Your task to perform on an android device: visit the assistant section in the google photos Image 0: 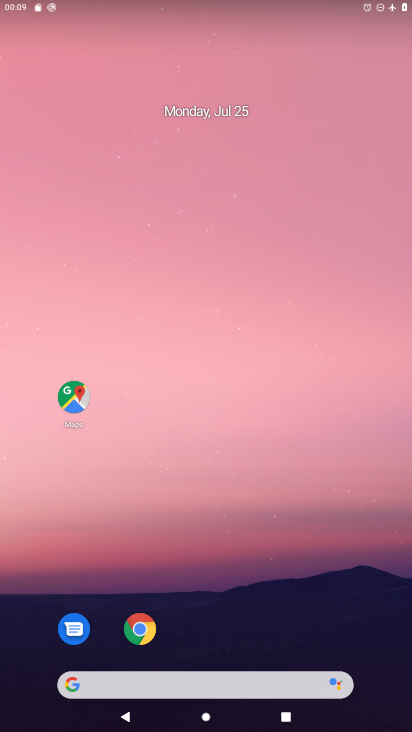
Step 0: drag from (198, 627) to (310, 81)
Your task to perform on an android device: visit the assistant section in the google photos Image 1: 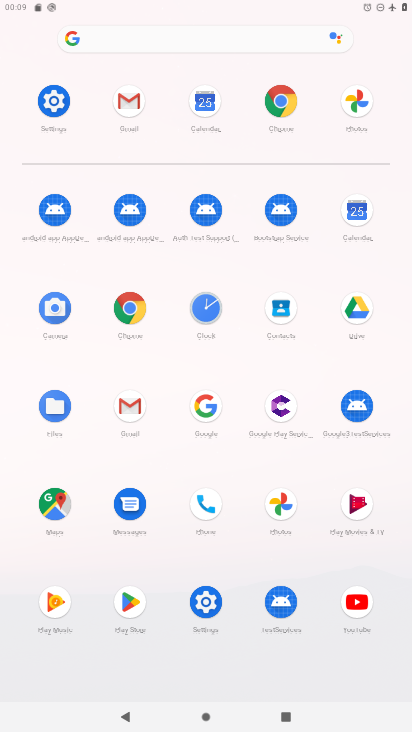
Step 1: click (289, 499)
Your task to perform on an android device: visit the assistant section in the google photos Image 2: 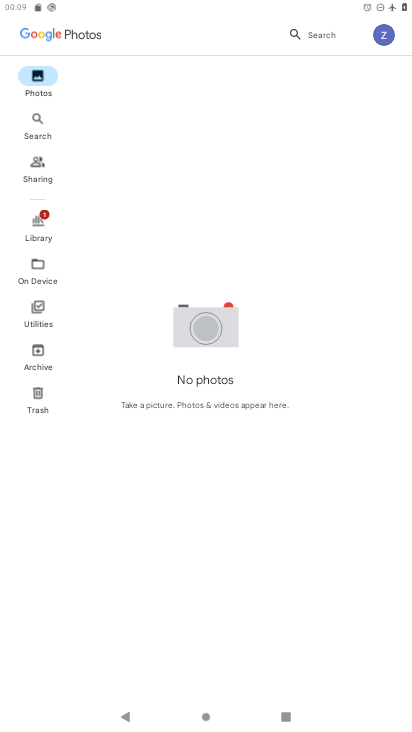
Step 2: click (36, 221)
Your task to perform on an android device: visit the assistant section in the google photos Image 3: 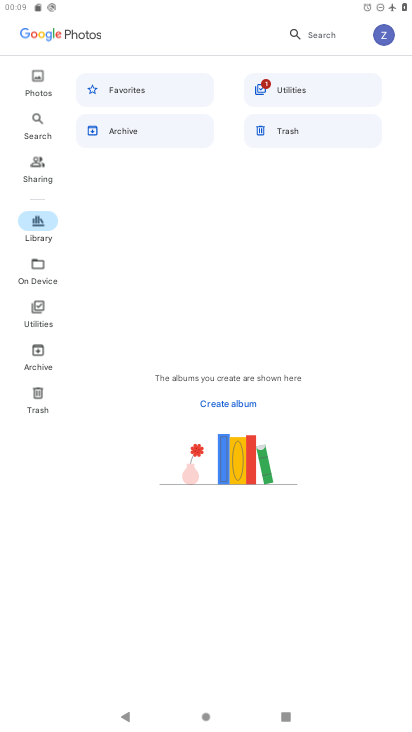
Step 3: click (31, 270)
Your task to perform on an android device: visit the assistant section in the google photos Image 4: 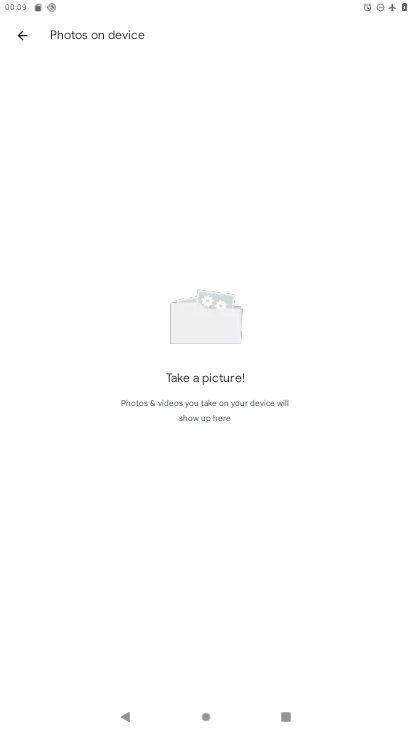
Step 4: click (16, 31)
Your task to perform on an android device: visit the assistant section in the google photos Image 5: 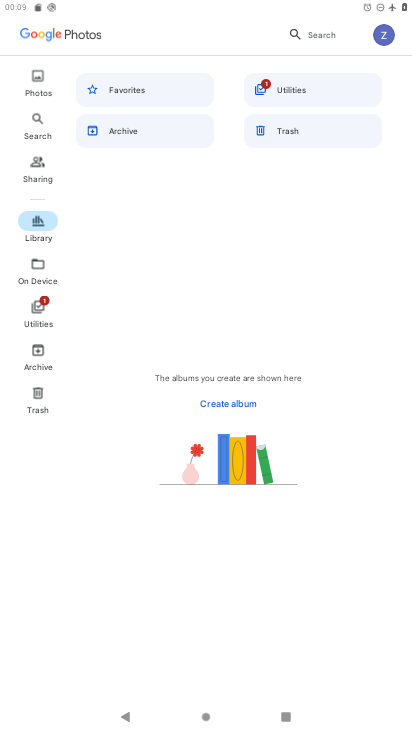
Step 5: click (38, 259)
Your task to perform on an android device: visit the assistant section in the google photos Image 6: 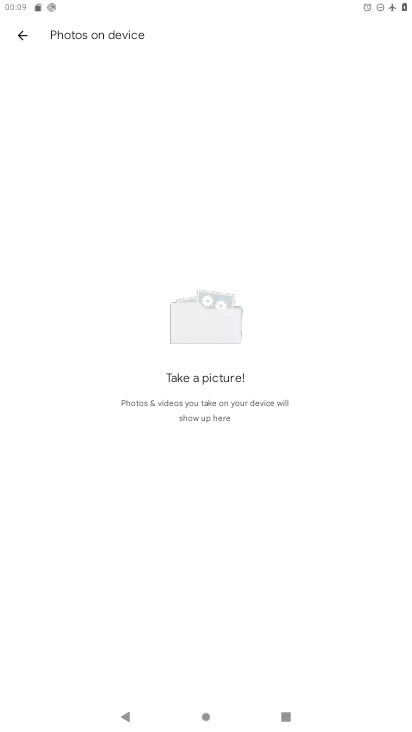
Step 6: click (19, 27)
Your task to perform on an android device: visit the assistant section in the google photos Image 7: 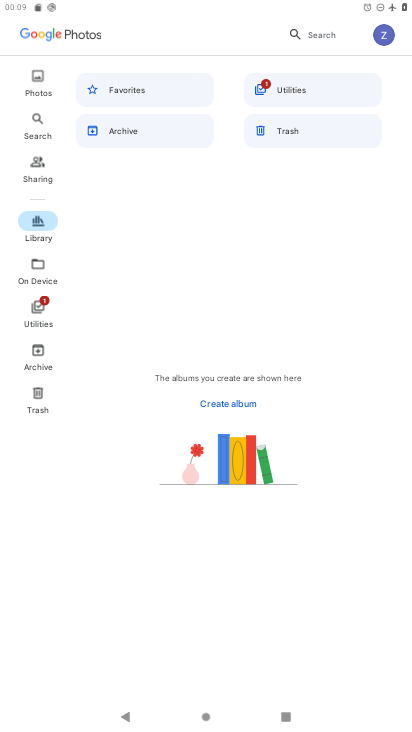
Step 7: click (34, 324)
Your task to perform on an android device: visit the assistant section in the google photos Image 8: 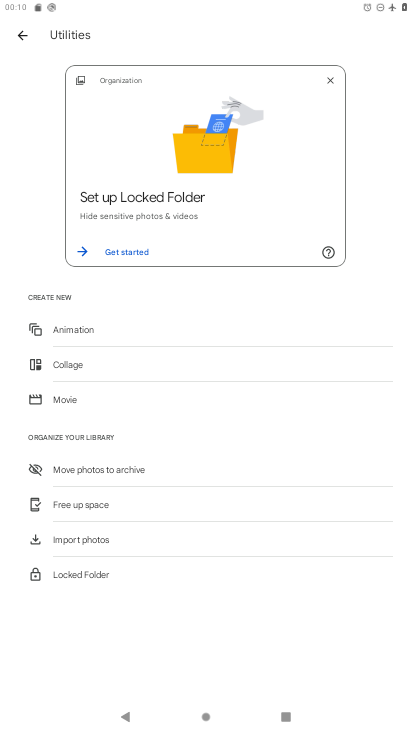
Step 8: task complete